Your task to perform on an android device: Go to notification settings Image 0: 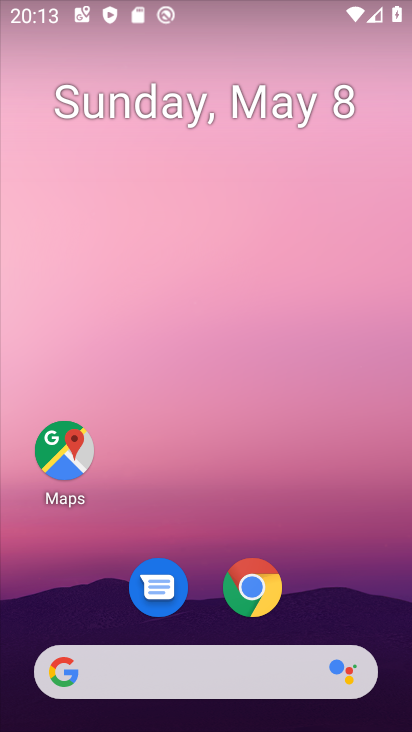
Step 0: drag from (204, 512) to (224, 0)
Your task to perform on an android device: Go to notification settings Image 1: 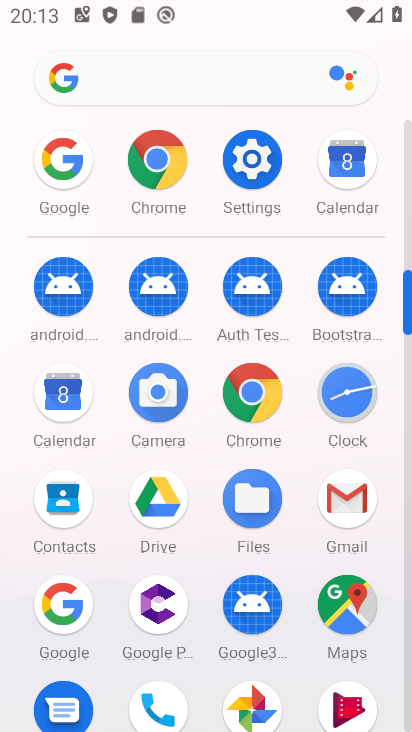
Step 1: click (252, 158)
Your task to perform on an android device: Go to notification settings Image 2: 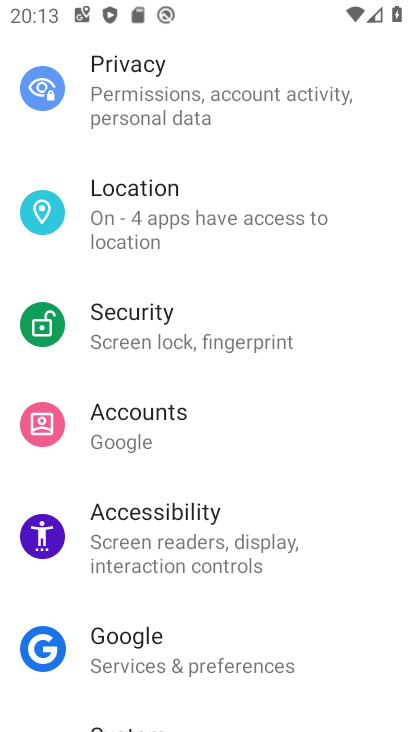
Step 2: drag from (229, 187) to (221, 312)
Your task to perform on an android device: Go to notification settings Image 3: 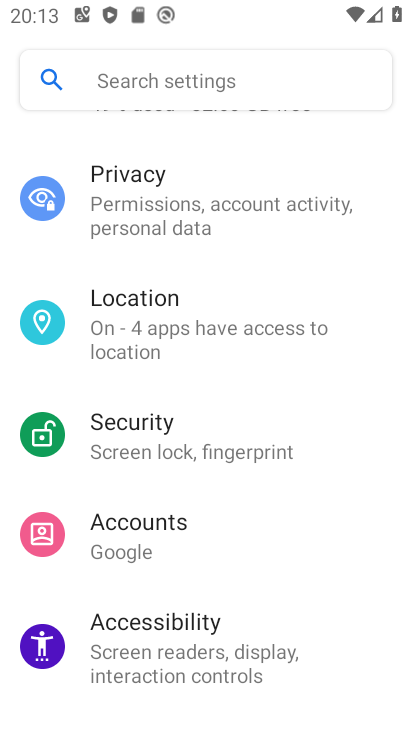
Step 3: drag from (199, 171) to (244, 320)
Your task to perform on an android device: Go to notification settings Image 4: 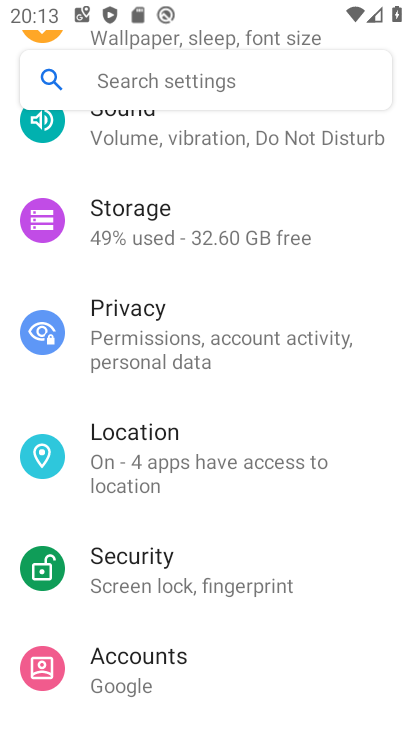
Step 4: drag from (182, 197) to (214, 347)
Your task to perform on an android device: Go to notification settings Image 5: 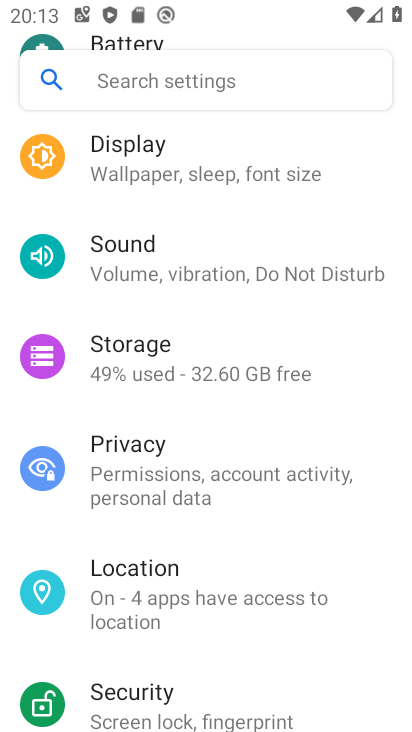
Step 5: drag from (200, 210) to (228, 347)
Your task to perform on an android device: Go to notification settings Image 6: 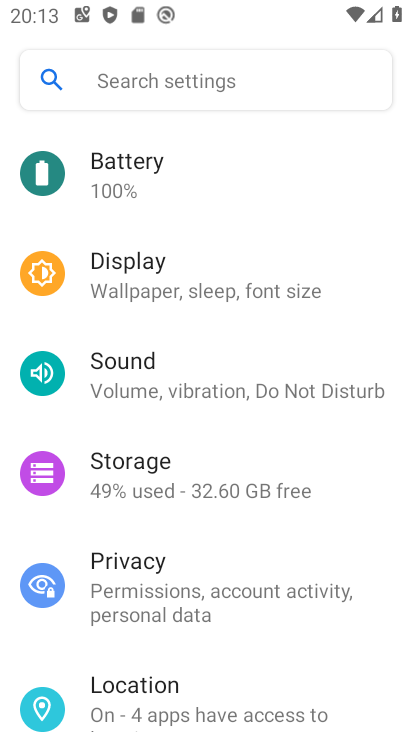
Step 6: drag from (183, 202) to (219, 347)
Your task to perform on an android device: Go to notification settings Image 7: 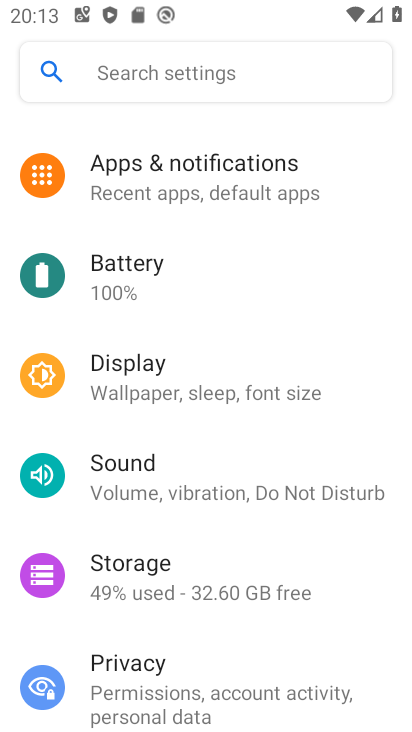
Step 7: click (177, 160)
Your task to perform on an android device: Go to notification settings Image 8: 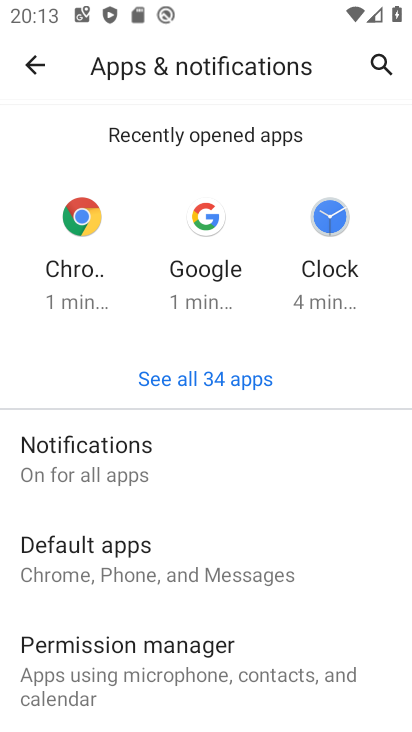
Step 8: click (98, 443)
Your task to perform on an android device: Go to notification settings Image 9: 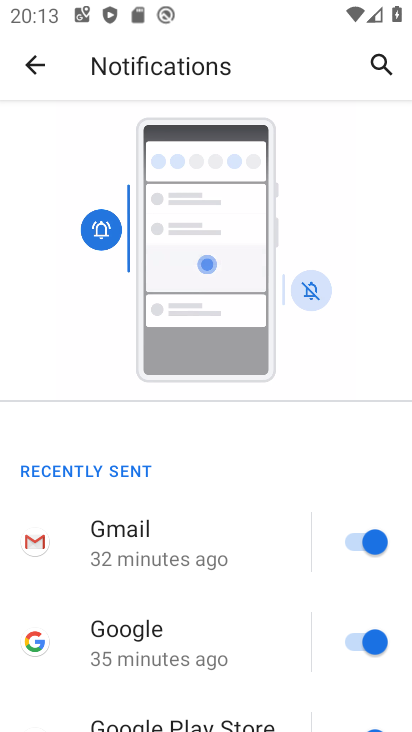
Step 9: task complete